Your task to perform on an android device: check android version Image 0: 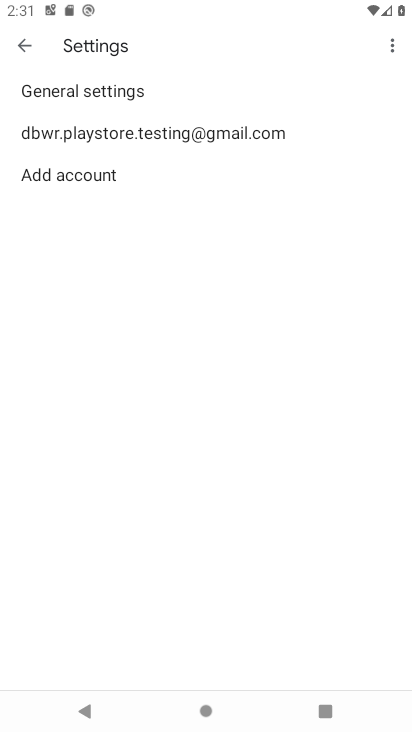
Step 0: press home button
Your task to perform on an android device: check android version Image 1: 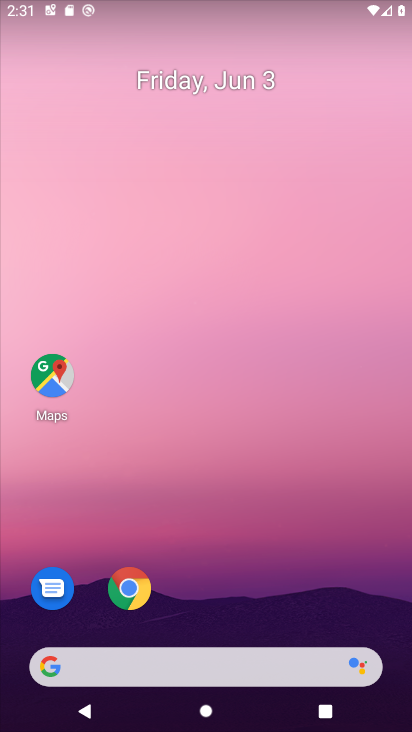
Step 1: drag from (79, 598) to (137, 2)
Your task to perform on an android device: check android version Image 2: 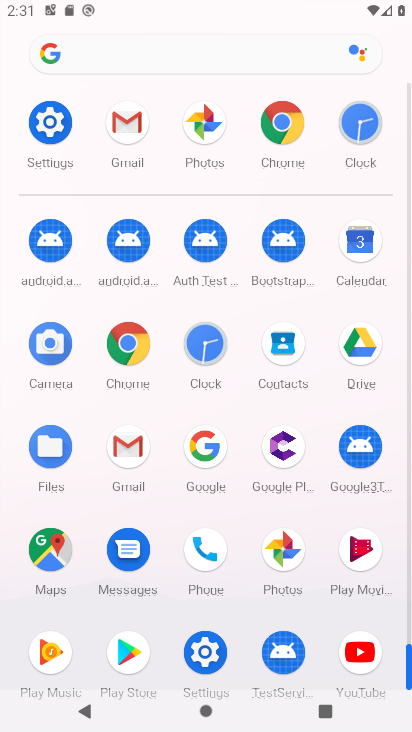
Step 2: click (48, 138)
Your task to perform on an android device: check android version Image 3: 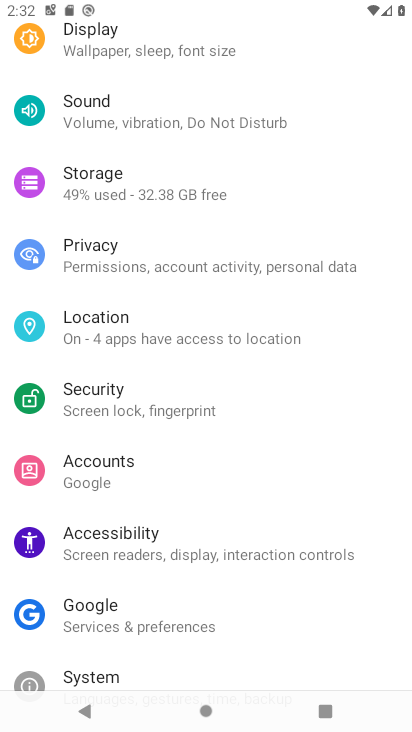
Step 3: drag from (167, 479) to (164, 285)
Your task to perform on an android device: check android version Image 4: 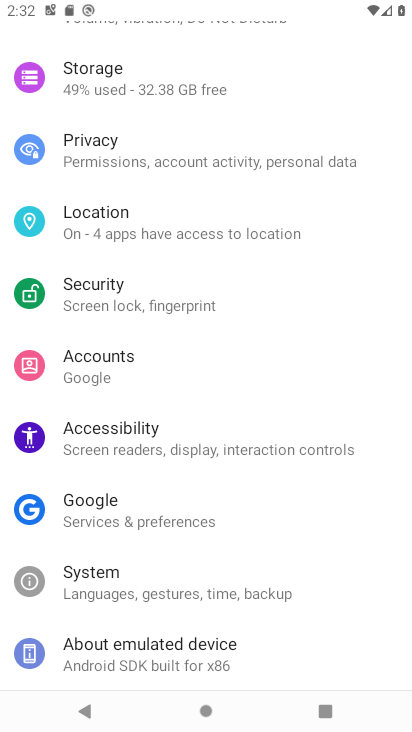
Step 4: click (180, 640)
Your task to perform on an android device: check android version Image 5: 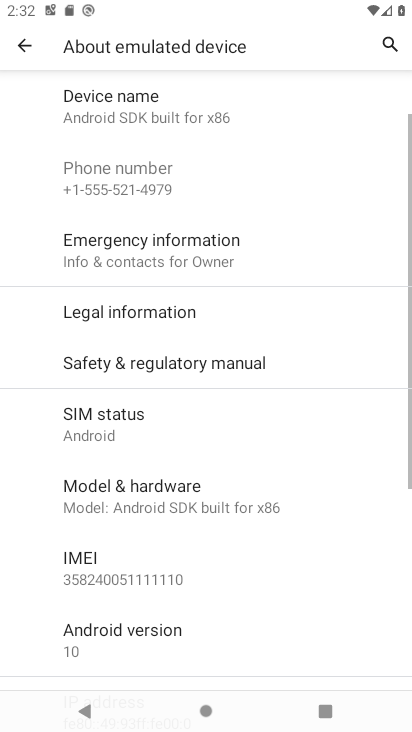
Step 5: click (137, 632)
Your task to perform on an android device: check android version Image 6: 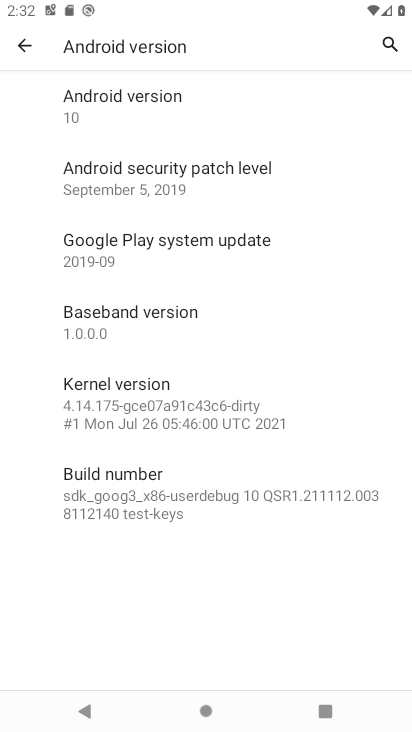
Step 6: task complete